Your task to perform on an android device: Check the news Image 0: 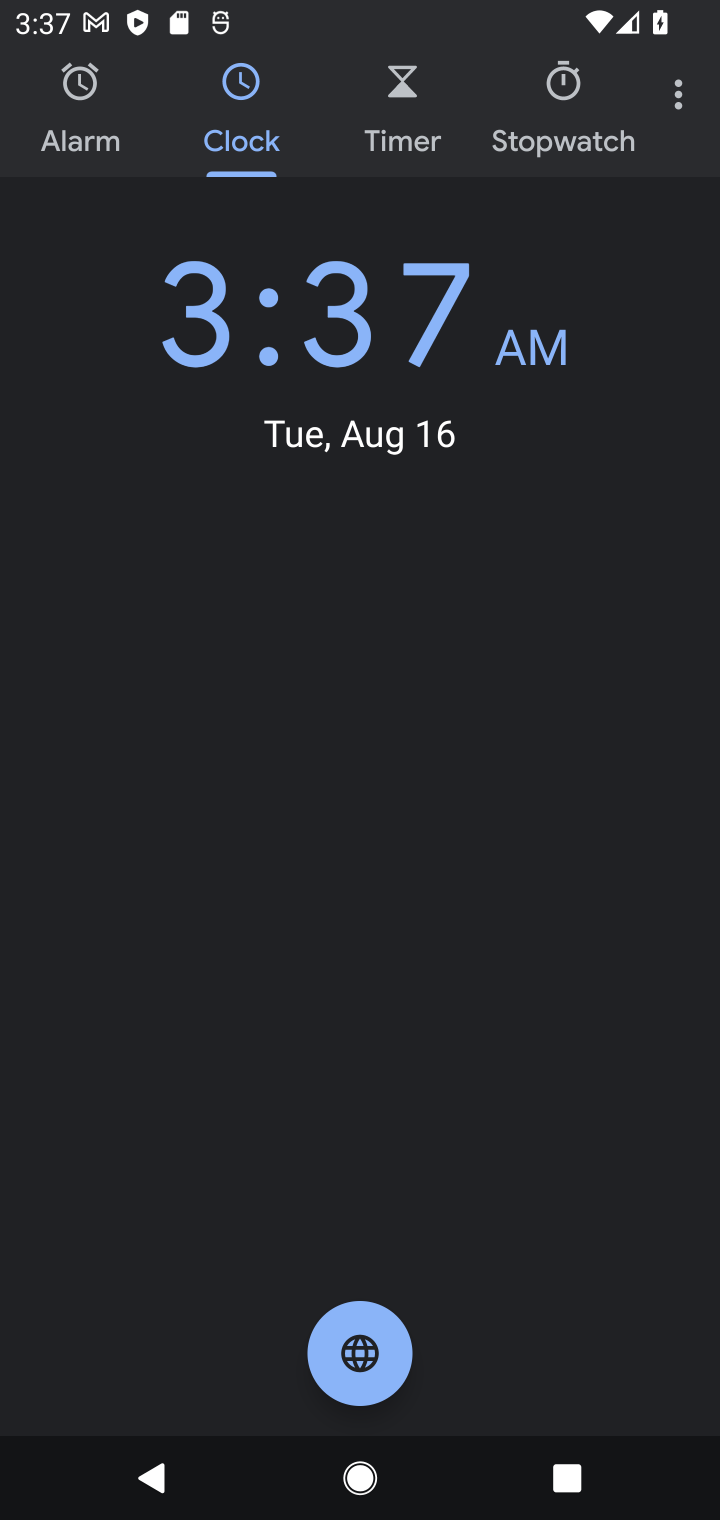
Step 0: press home button
Your task to perform on an android device: Check the news Image 1: 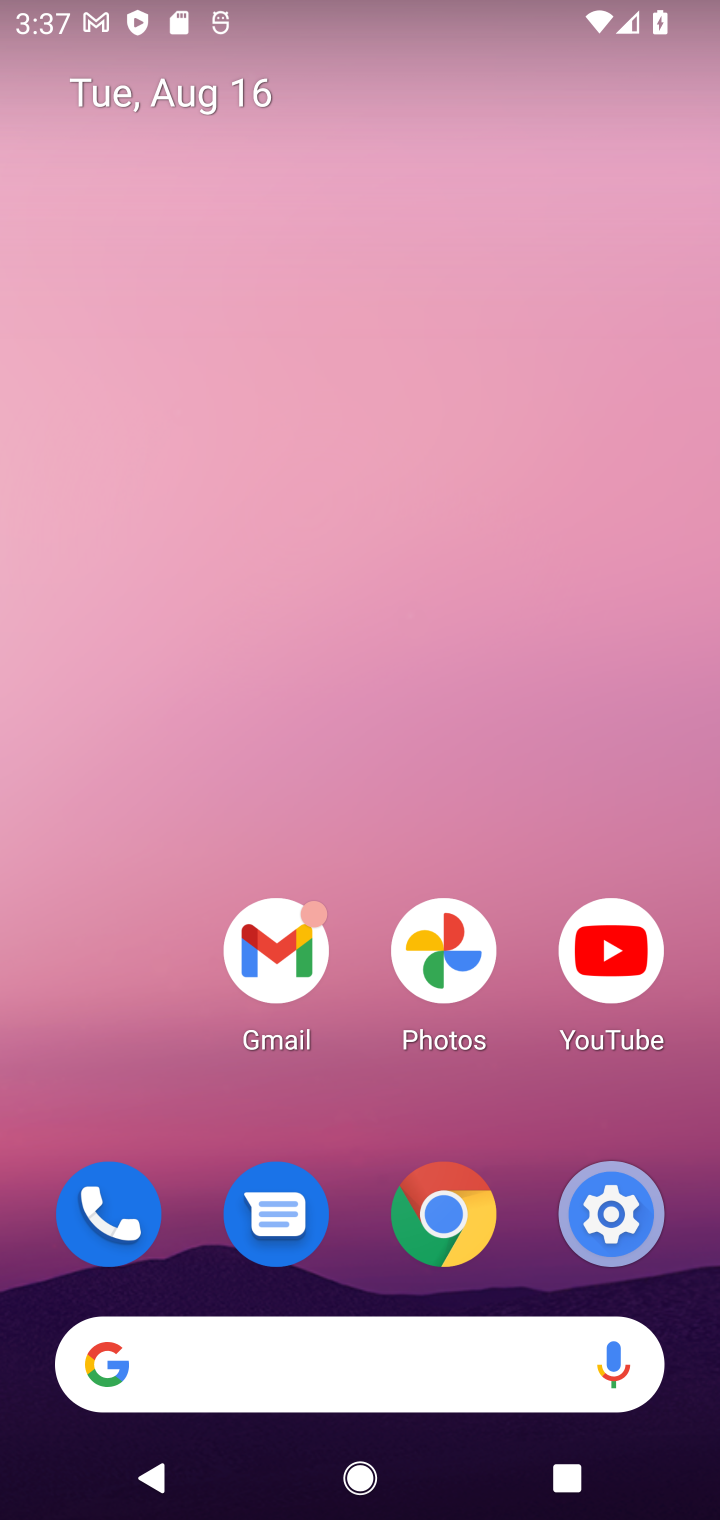
Step 1: drag from (350, 1228) to (251, 694)
Your task to perform on an android device: Check the news Image 2: 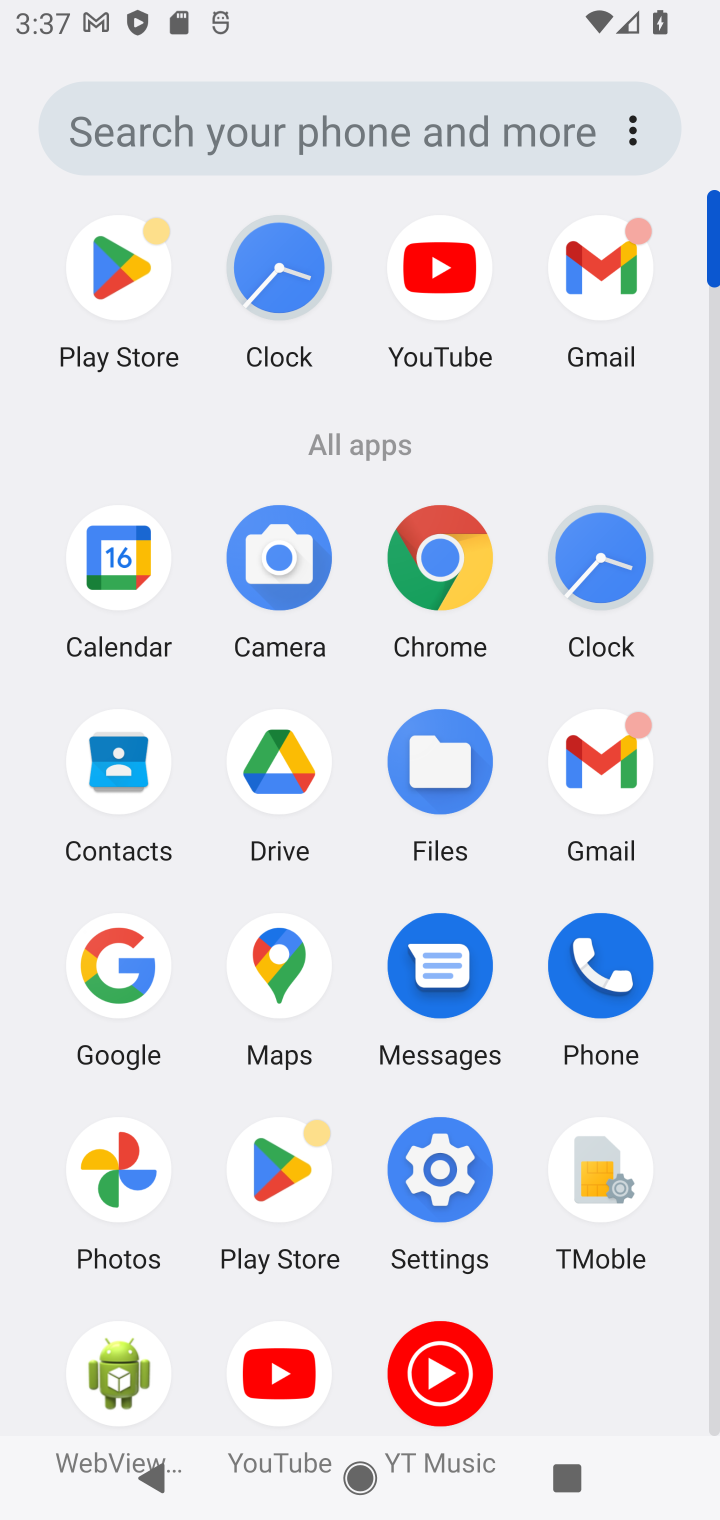
Step 2: click (137, 979)
Your task to perform on an android device: Check the news Image 3: 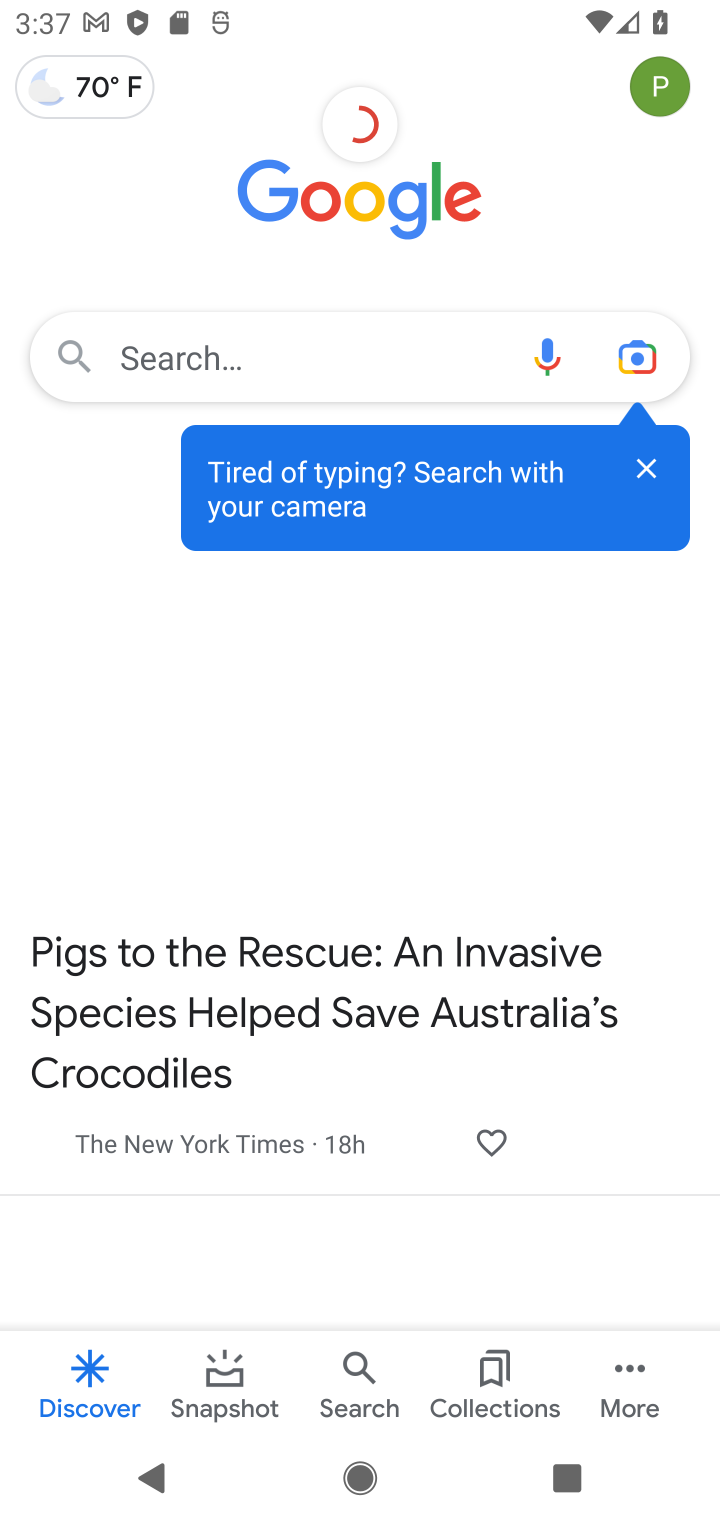
Step 3: click (259, 347)
Your task to perform on an android device: Check the news Image 4: 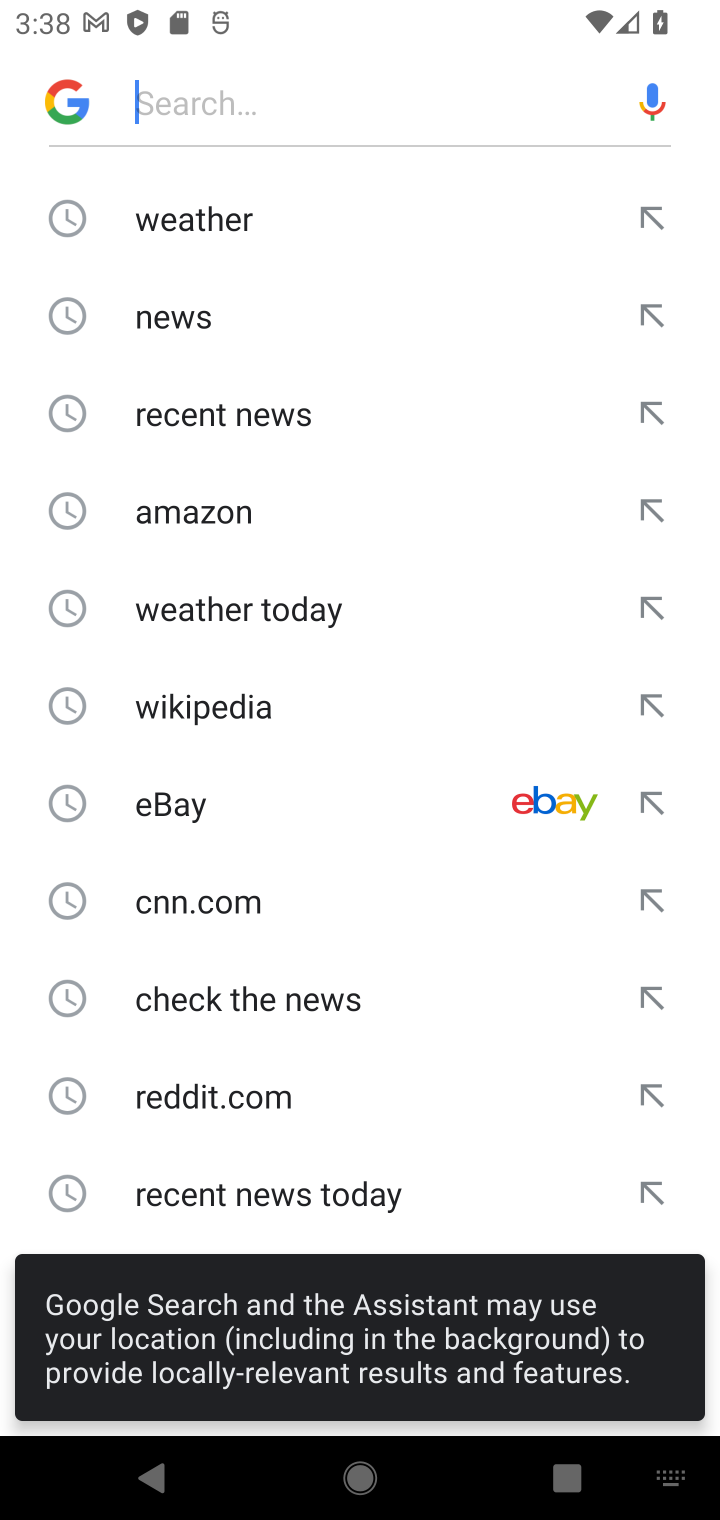
Step 4: click (236, 343)
Your task to perform on an android device: Check the news Image 5: 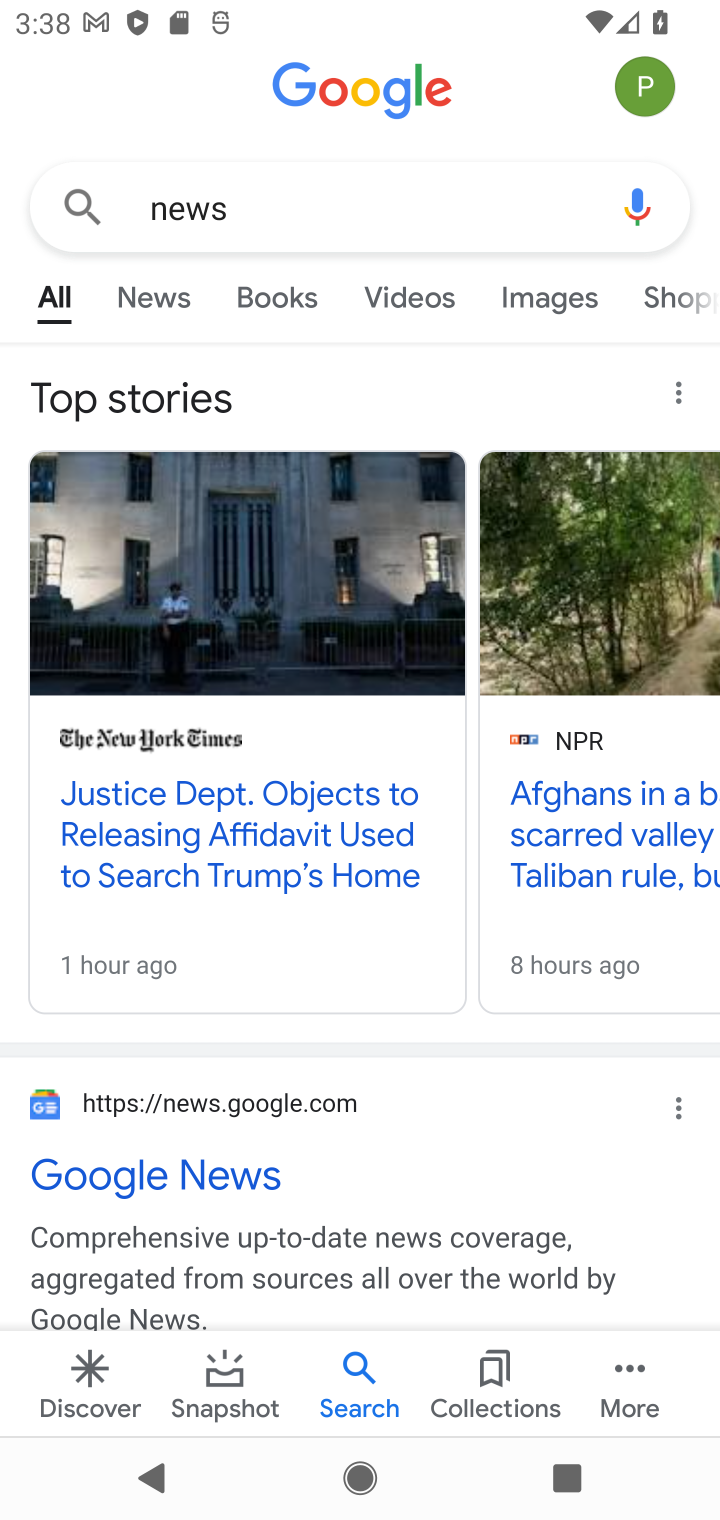
Step 5: task complete